Your task to perform on an android device: check battery use Image 0: 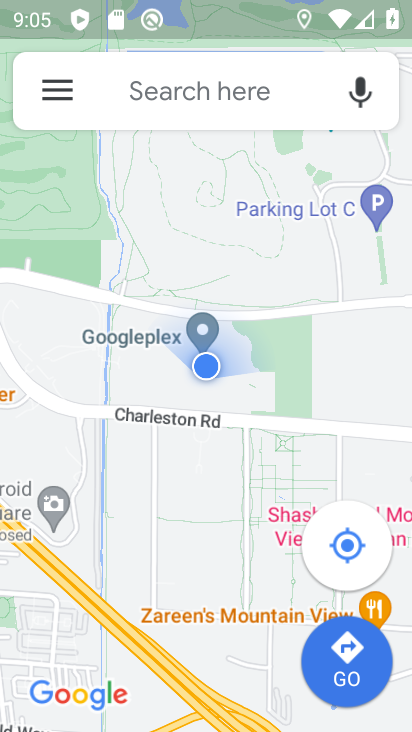
Step 0: press back button
Your task to perform on an android device: check battery use Image 1: 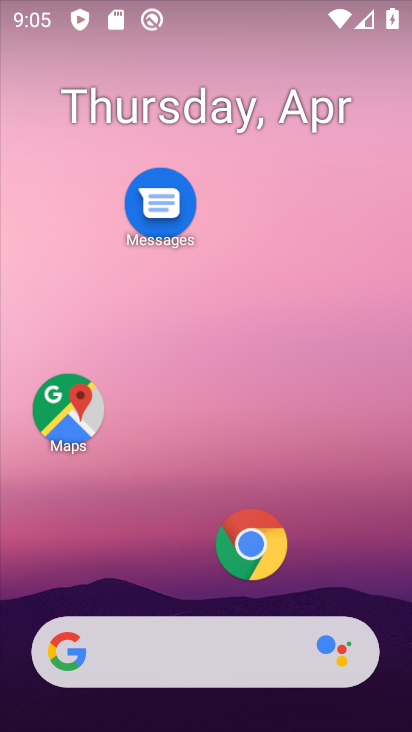
Step 1: drag from (224, 617) to (215, 192)
Your task to perform on an android device: check battery use Image 2: 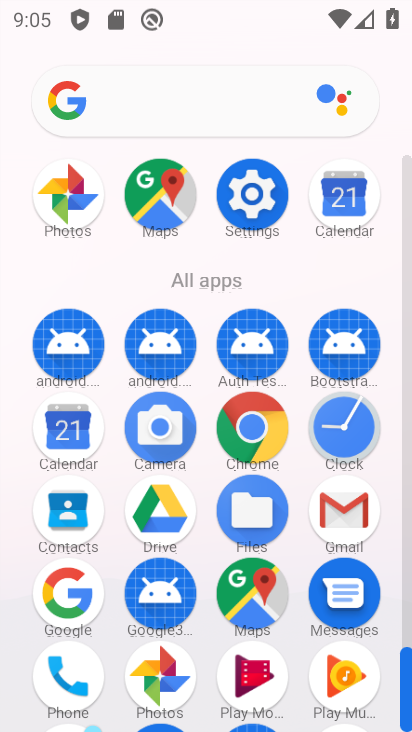
Step 2: click (248, 194)
Your task to perform on an android device: check battery use Image 3: 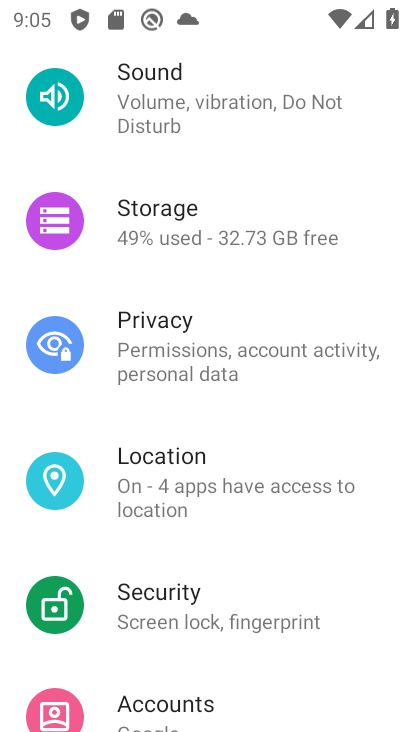
Step 3: drag from (248, 170) to (255, 664)
Your task to perform on an android device: check battery use Image 4: 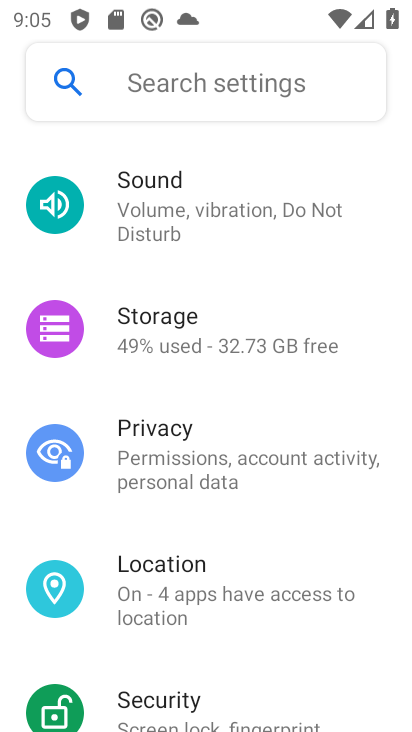
Step 4: drag from (224, 154) to (245, 660)
Your task to perform on an android device: check battery use Image 5: 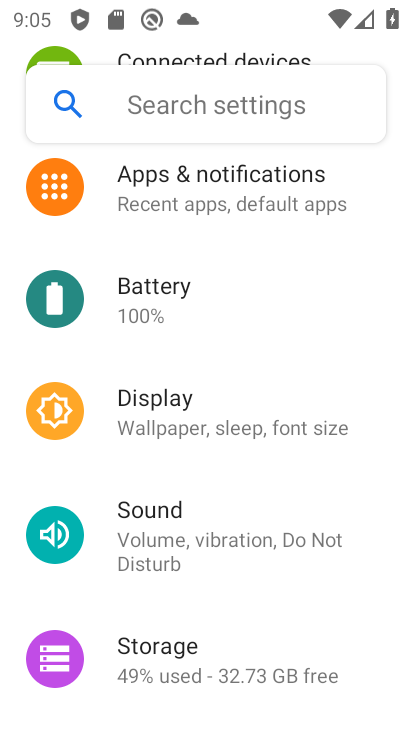
Step 5: click (154, 294)
Your task to perform on an android device: check battery use Image 6: 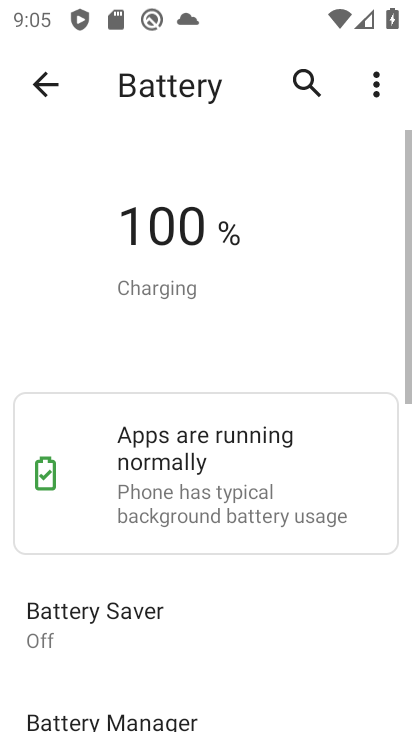
Step 6: click (380, 82)
Your task to perform on an android device: check battery use Image 7: 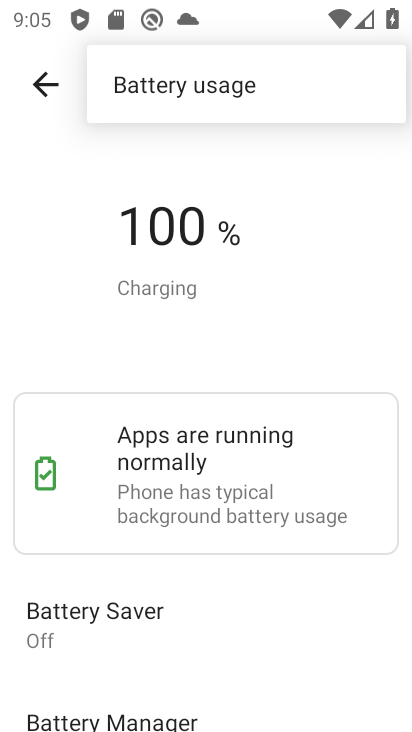
Step 7: click (206, 94)
Your task to perform on an android device: check battery use Image 8: 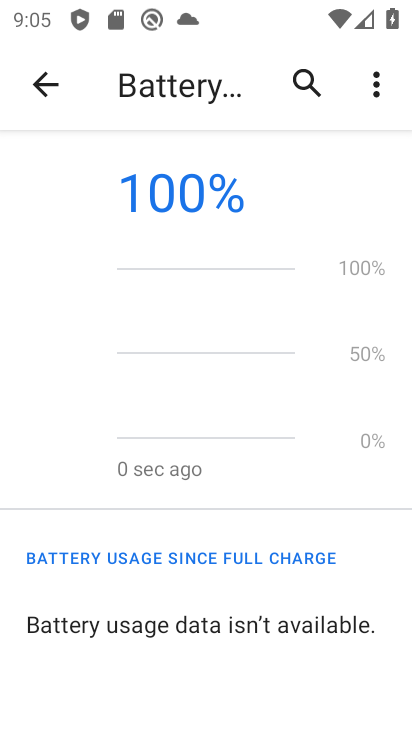
Step 8: task complete